Your task to perform on an android device: find photos in the google photos app Image 0: 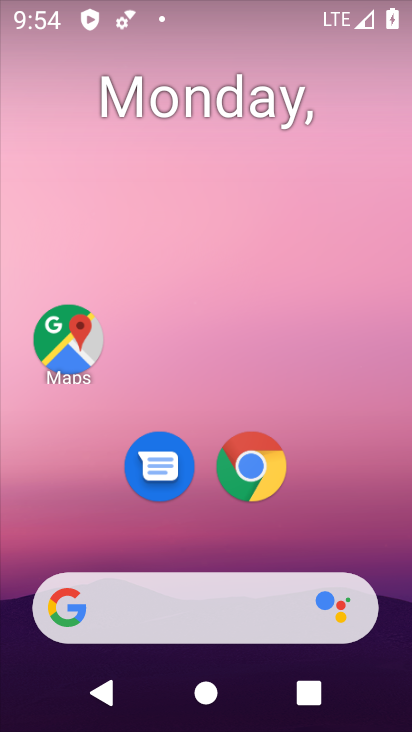
Step 0: drag from (368, 493) to (355, 102)
Your task to perform on an android device: find photos in the google photos app Image 1: 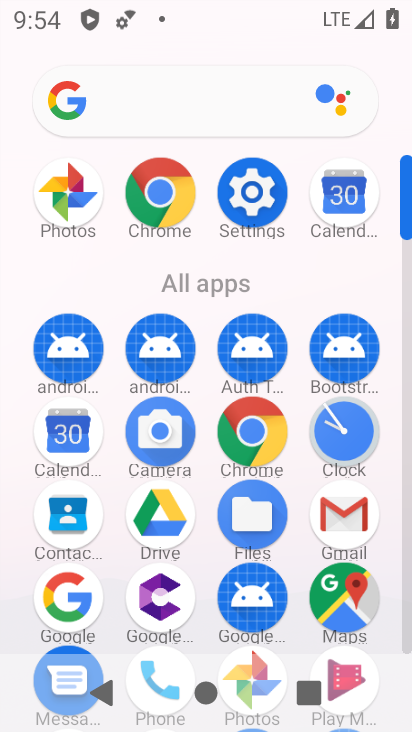
Step 1: drag from (345, 9) to (299, 179)
Your task to perform on an android device: find photos in the google photos app Image 2: 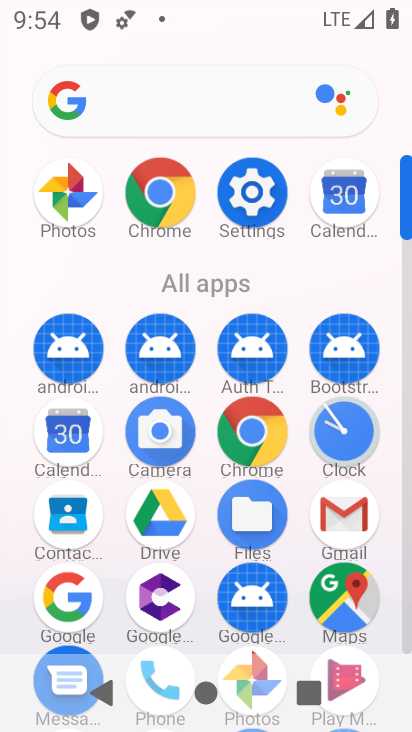
Step 2: click (45, 205)
Your task to perform on an android device: find photos in the google photos app Image 3: 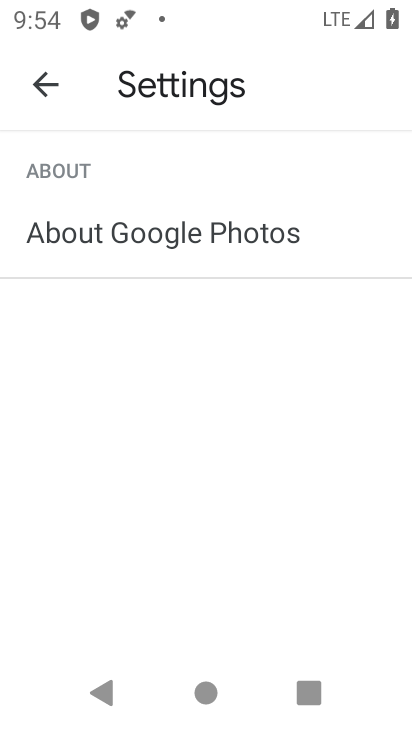
Step 3: click (45, 84)
Your task to perform on an android device: find photos in the google photos app Image 4: 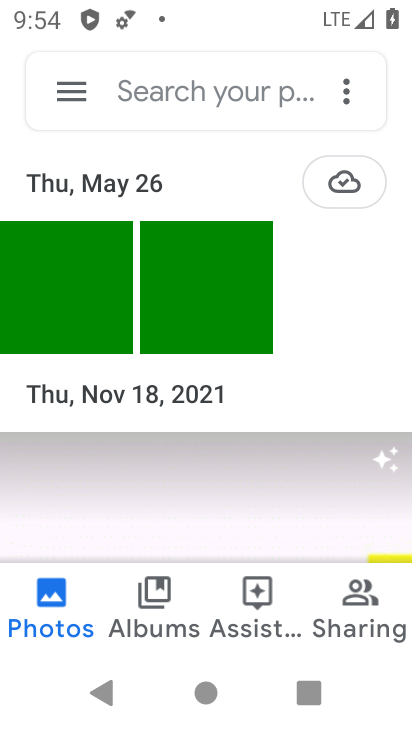
Step 4: task complete